Your task to perform on an android device: change the clock display to analog Image 0: 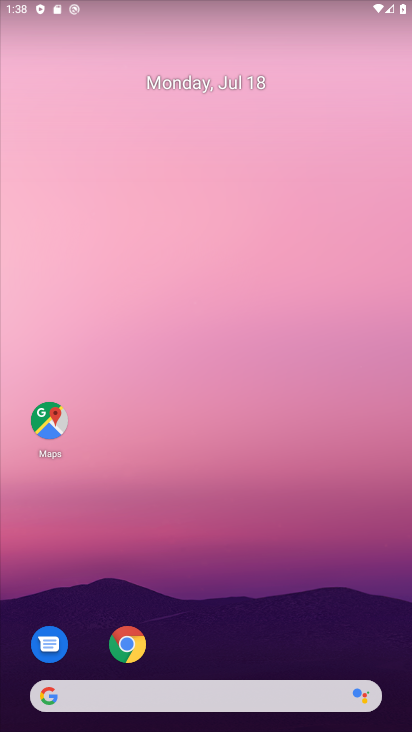
Step 0: drag from (280, 587) to (214, 9)
Your task to perform on an android device: change the clock display to analog Image 1: 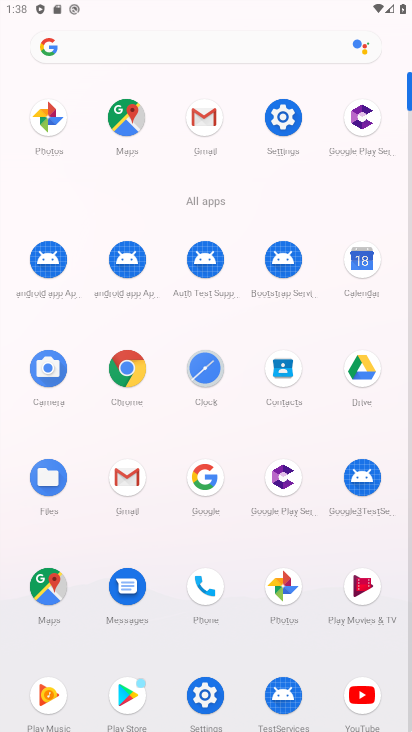
Step 1: click (203, 360)
Your task to perform on an android device: change the clock display to analog Image 2: 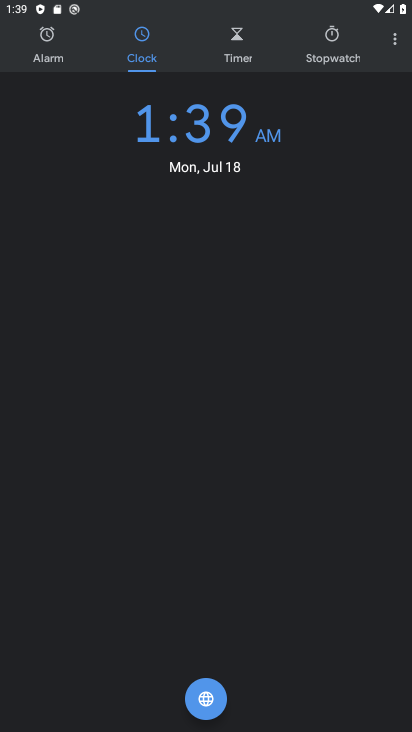
Step 2: click (397, 47)
Your task to perform on an android device: change the clock display to analog Image 3: 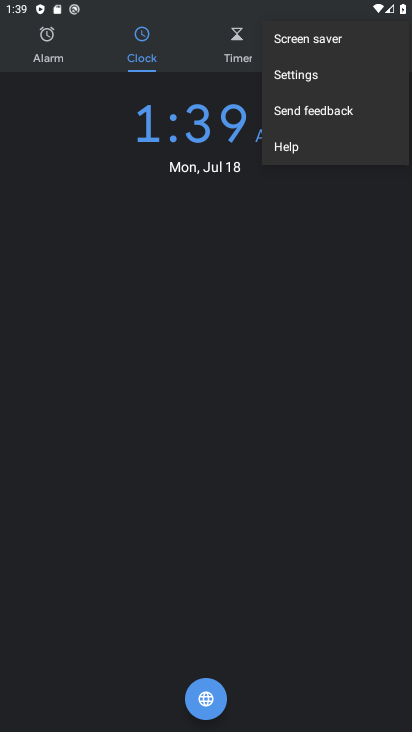
Step 3: click (320, 79)
Your task to perform on an android device: change the clock display to analog Image 4: 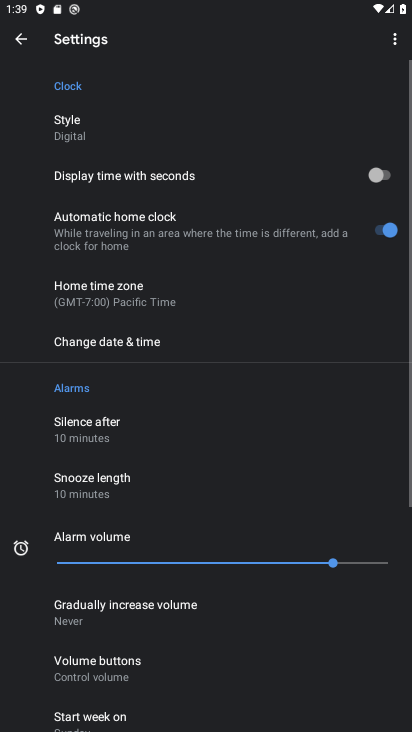
Step 4: click (246, 115)
Your task to perform on an android device: change the clock display to analog Image 5: 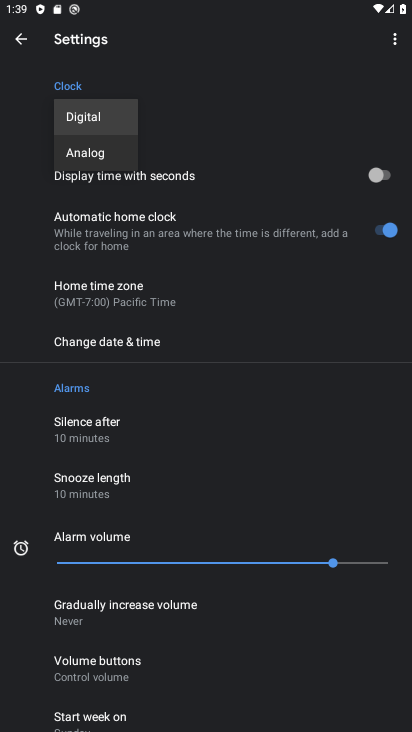
Step 5: click (95, 163)
Your task to perform on an android device: change the clock display to analog Image 6: 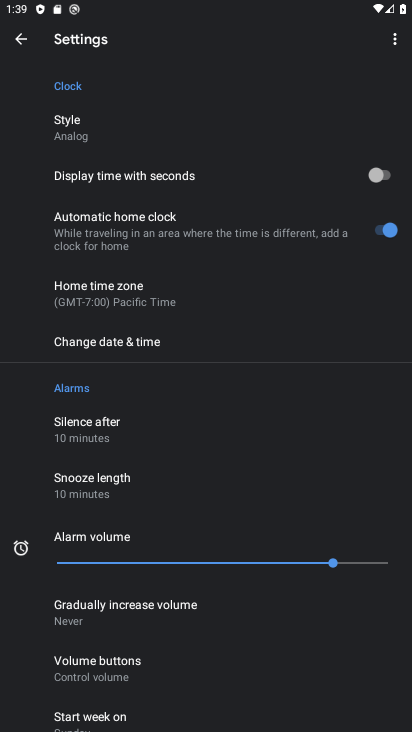
Step 6: task complete